Your task to perform on an android device: manage bookmarks in the chrome app Image 0: 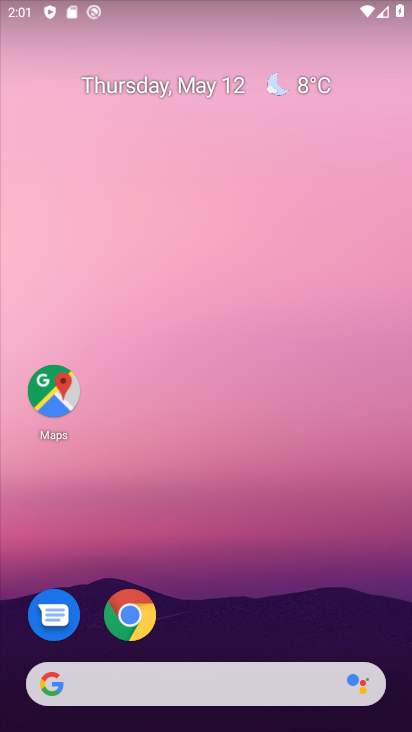
Step 0: click (275, 299)
Your task to perform on an android device: manage bookmarks in the chrome app Image 1: 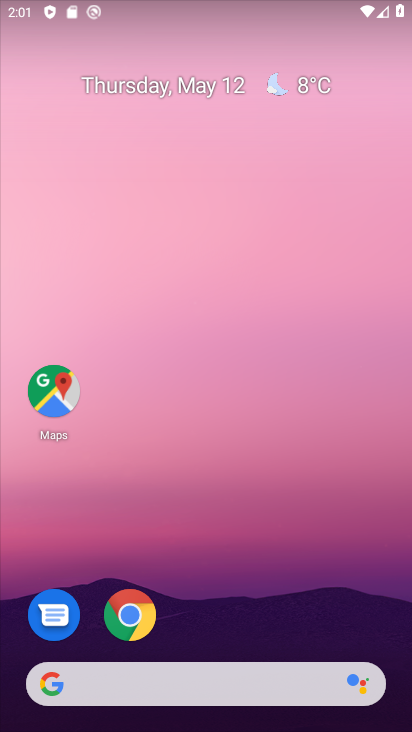
Step 1: click (123, 624)
Your task to perform on an android device: manage bookmarks in the chrome app Image 2: 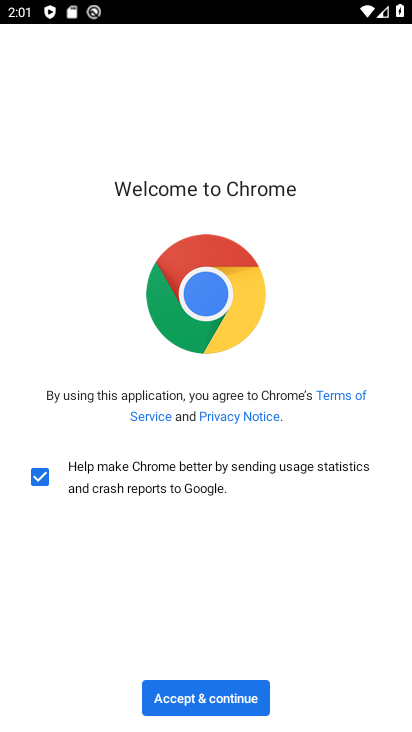
Step 2: click (258, 701)
Your task to perform on an android device: manage bookmarks in the chrome app Image 3: 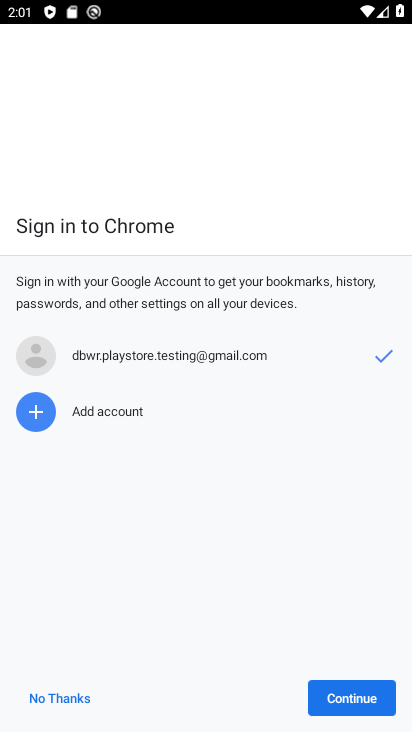
Step 3: click (333, 702)
Your task to perform on an android device: manage bookmarks in the chrome app Image 4: 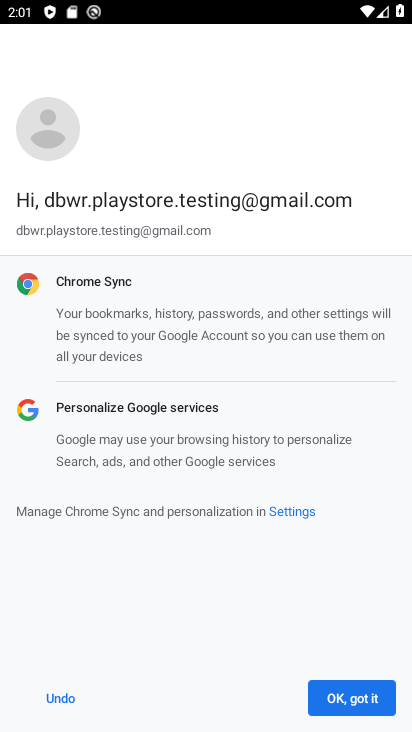
Step 4: click (365, 674)
Your task to perform on an android device: manage bookmarks in the chrome app Image 5: 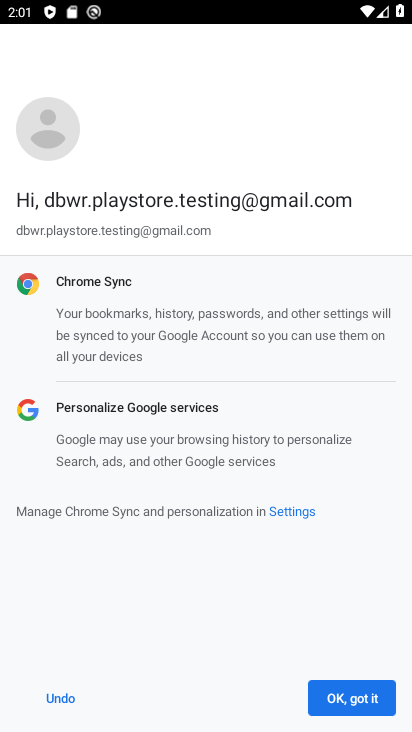
Step 5: click (367, 697)
Your task to perform on an android device: manage bookmarks in the chrome app Image 6: 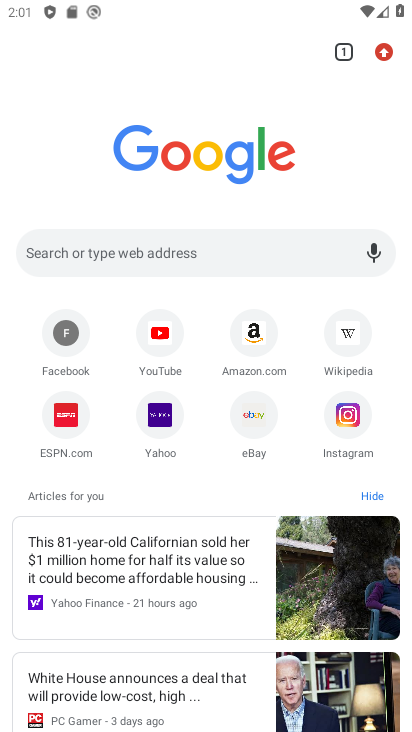
Step 6: task complete